Your task to perform on an android device: turn on javascript in the chrome app Image 0: 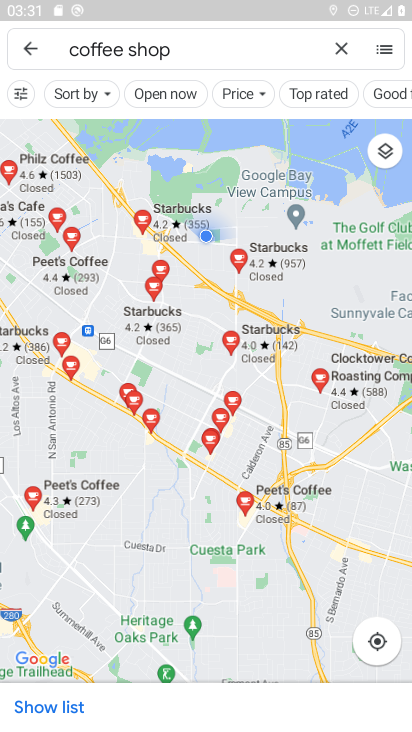
Step 0: press home button
Your task to perform on an android device: turn on javascript in the chrome app Image 1: 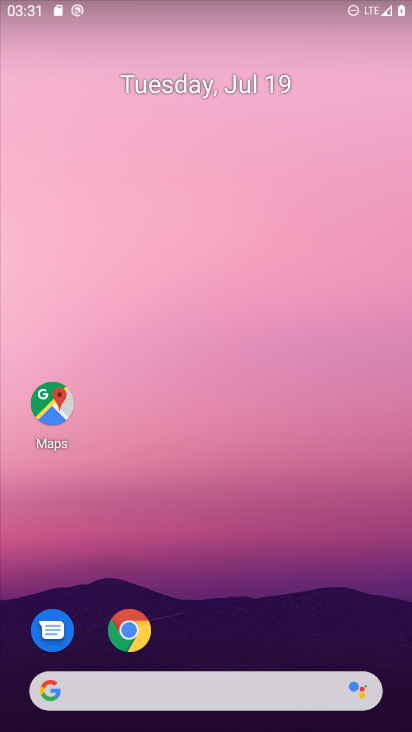
Step 1: click (129, 635)
Your task to perform on an android device: turn on javascript in the chrome app Image 2: 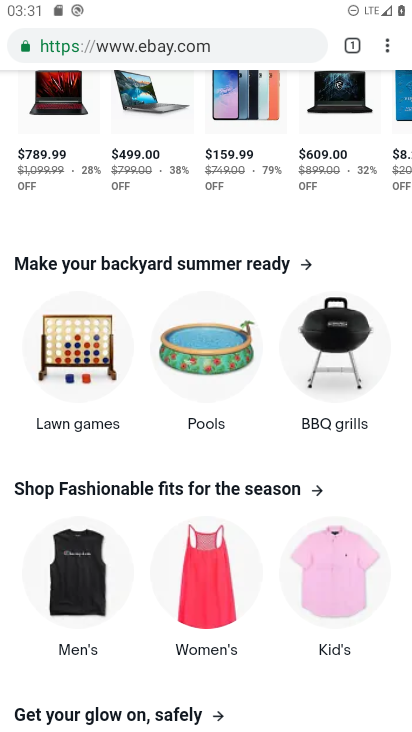
Step 2: click (387, 53)
Your task to perform on an android device: turn on javascript in the chrome app Image 3: 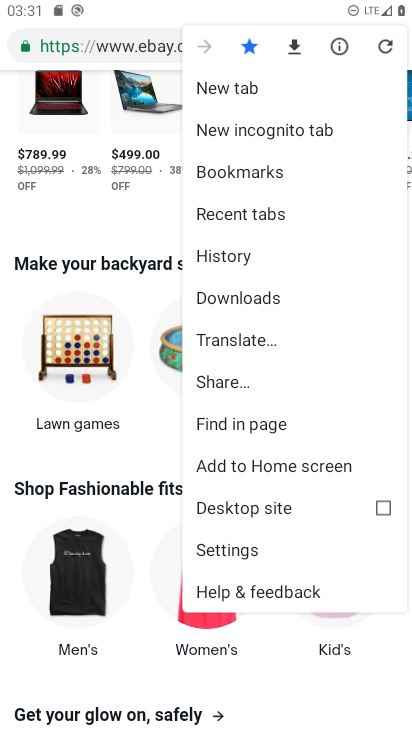
Step 3: click (232, 550)
Your task to perform on an android device: turn on javascript in the chrome app Image 4: 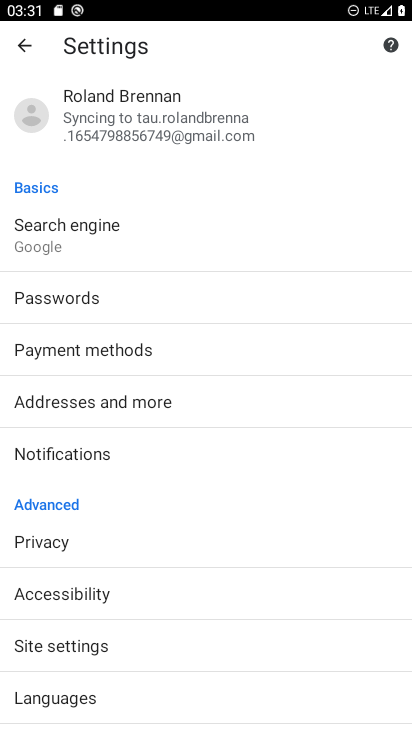
Step 4: drag from (195, 617) to (200, 383)
Your task to perform on an android device: turn on javascript in the chrome app Image 5: 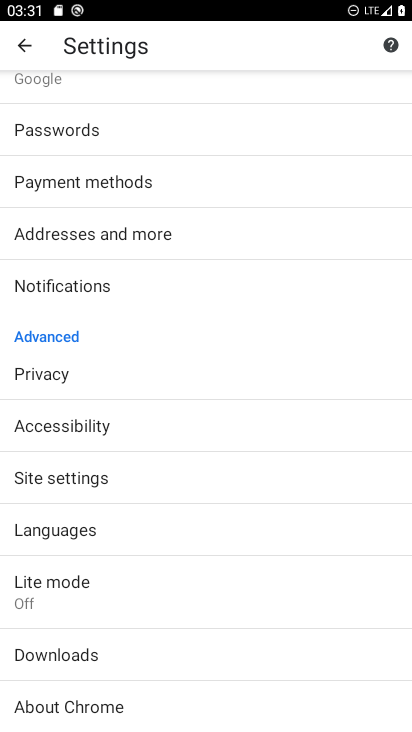
Step 5: click (71, 475)
Your task to perform on an android device: turn on javascript in the chrome app Image 6: 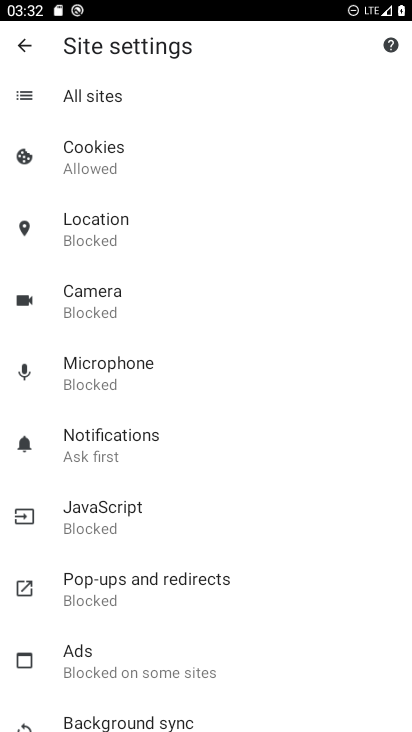
Step 6: click (86, 516)
Your task to perform on an android device: turn on javascript in the chrome app Image 7: 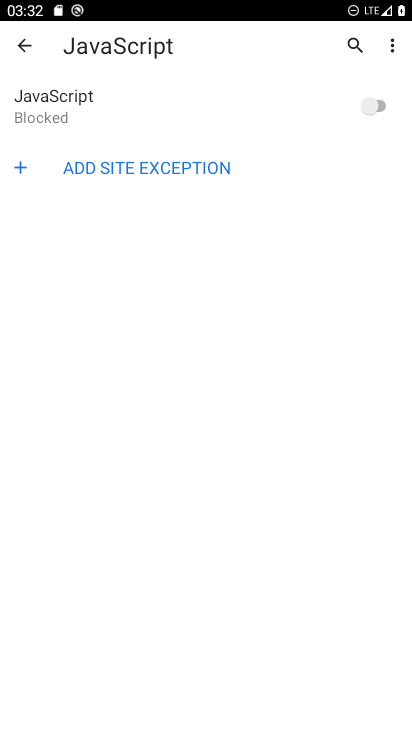
Step 7: click (383, 105)
Your task to perform on an android device: turn on javascript in the chrome app Image 8: 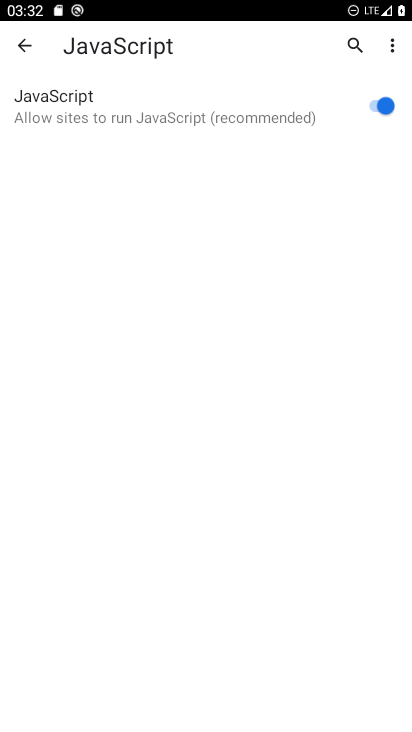
Step 8: task complete